Your task to perform on an android device: Open Google Chrome Image 0: 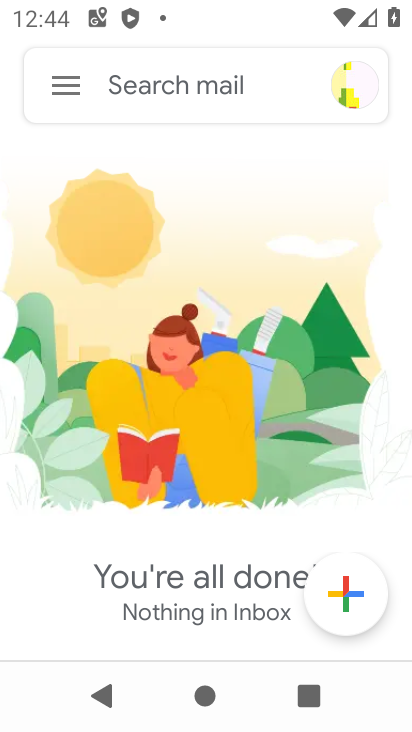
Step 0: press home button
Your task to perform on an android device: Open Google Chrome Image 1: 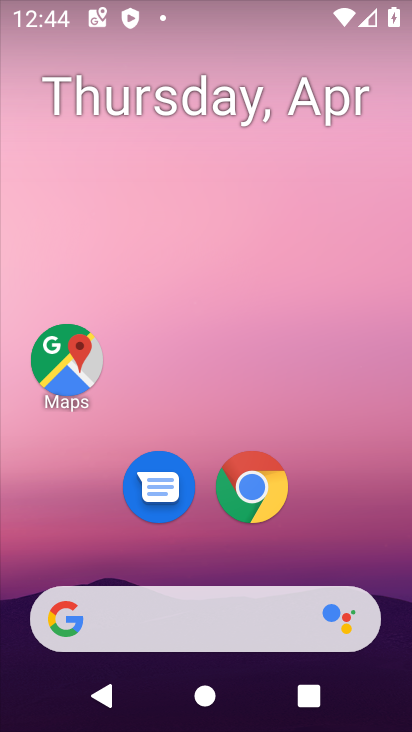
Step 1: click (240, 495)
Your task to perform on an android device: Open Google Chrome Image 2: 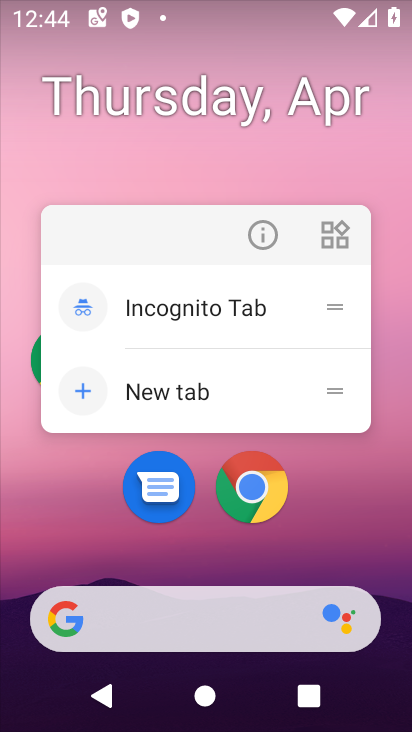
Step 2: click (240, 495)
Your task to perform on an android device: Open Google Chrome Image 3: 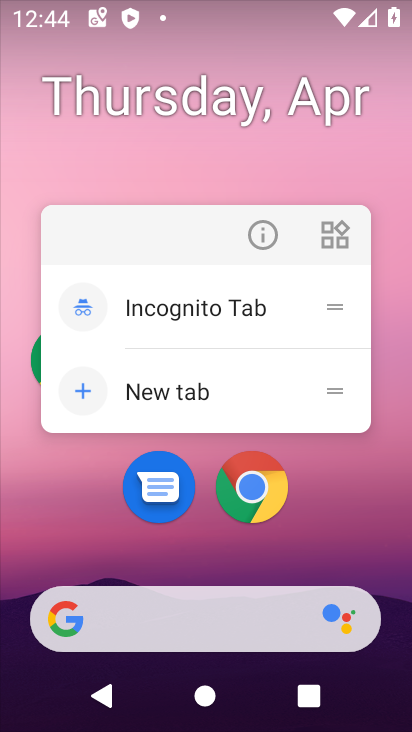
Step 3: click (240, 495)
Your task to perform on an android device: Open Google Chrome Image 4: 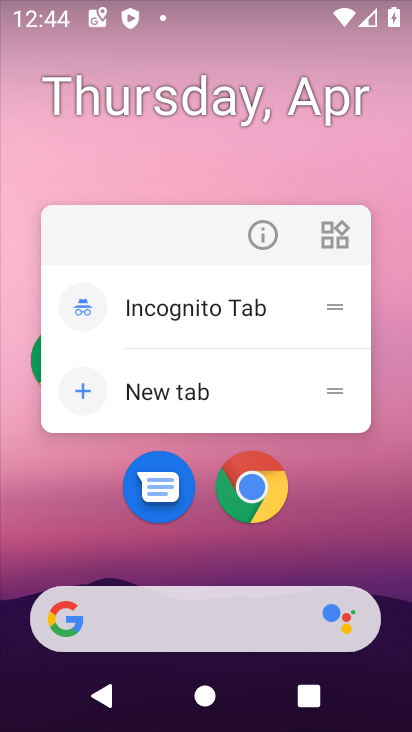
Step 4: click (239, 492)
Your task to perform on an android device: Open Google Chrome Image 5: 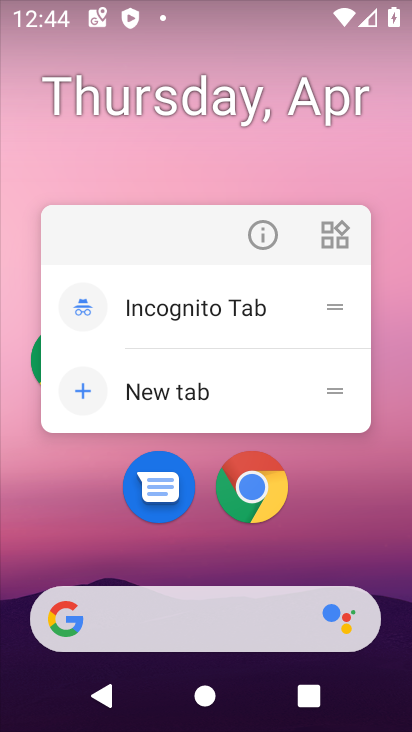
Step 5: click (239, 492)
Your task to perform on an android device: Open Google Chrome Image 6: 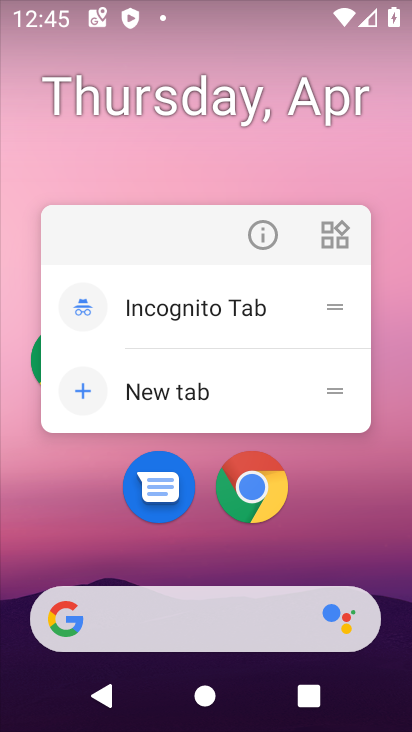
Step 6: click (249, 483)
Your task to perform on an android device: Open Google Chrome Image 7: 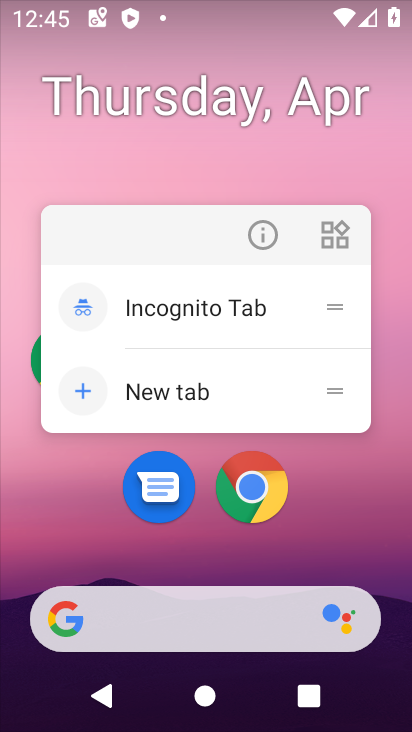
Step 7: click (249, 483)
Your task to perform on an android device: Open Google Chrome Image 8: 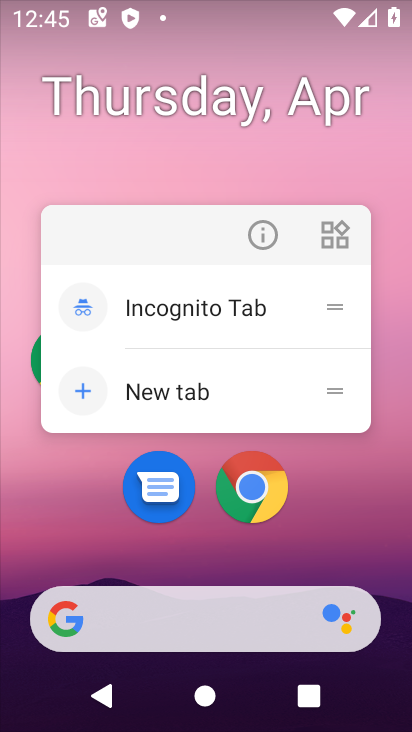
Step 8: click (249, 483)
Your task to perform on an android device: Open Google Chrome Image 9: 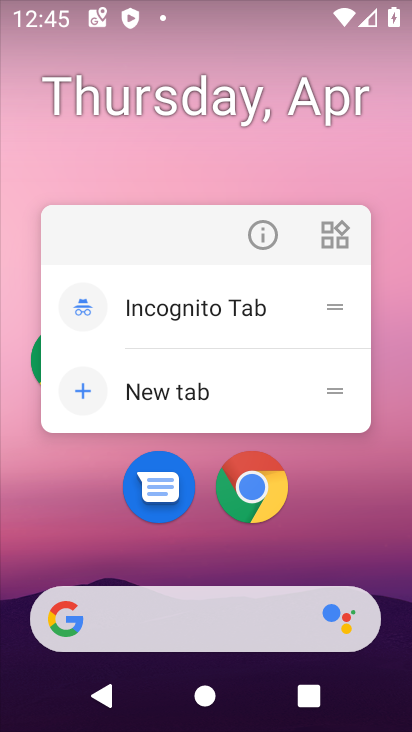
Step 9: click (249, 483)
Your task to perform on an android device: Open Google Chrome Image 10: 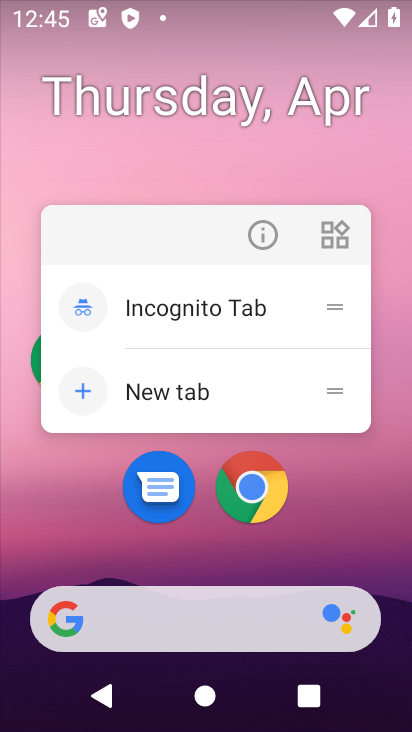
Step 10: click (249, 483)
Your task to perform on an android device: Open Google Chrome Image 11: 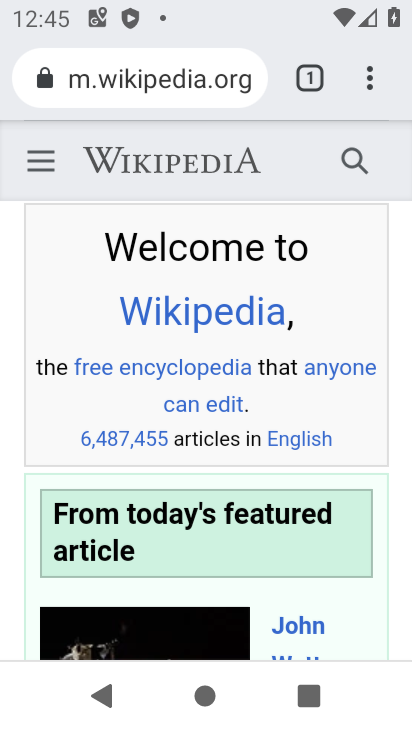
Step 11: click (249, 483)
Your task to perform on an android device: Open Google Chrome Image 12: 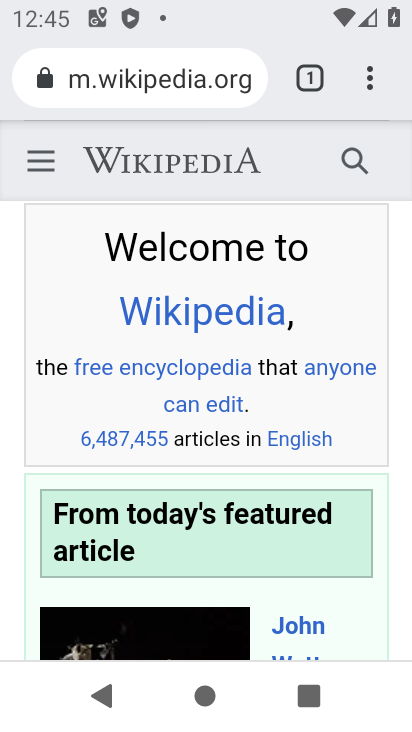
Step 12: task complete